Your task to perform on an android device: change alarm snooze length Image 0: 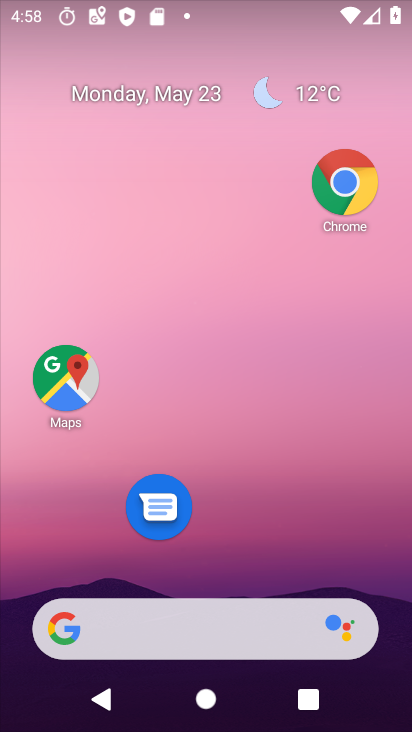
Step 0: drag from (181, 332) to (194, 275)
Your task to perform on an android device: change alarm snooze length Image 1: 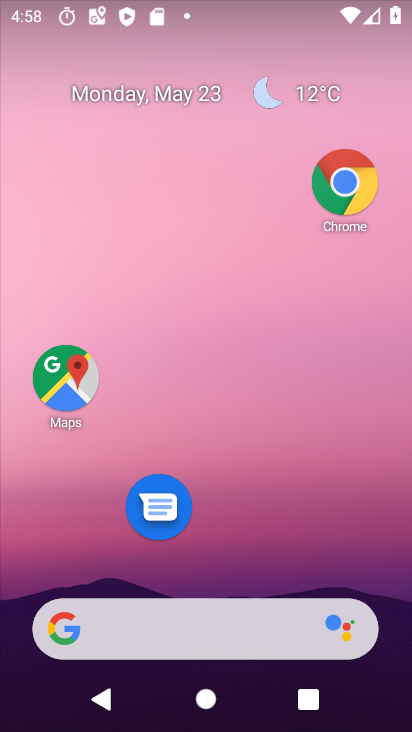
Step 1: drag from (106, 500) to (154, 106)
Your task to perform on an android device: change alarm snooze length Image 2: 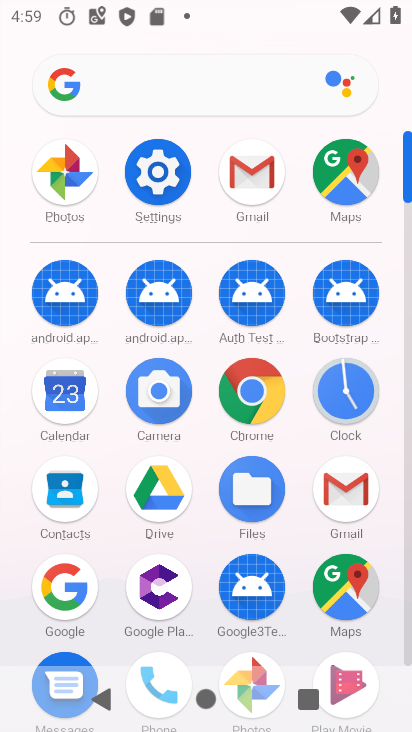
Step 2: click (337, 391)
Your task to perform on an android device: change alarm snooze length Image 3: 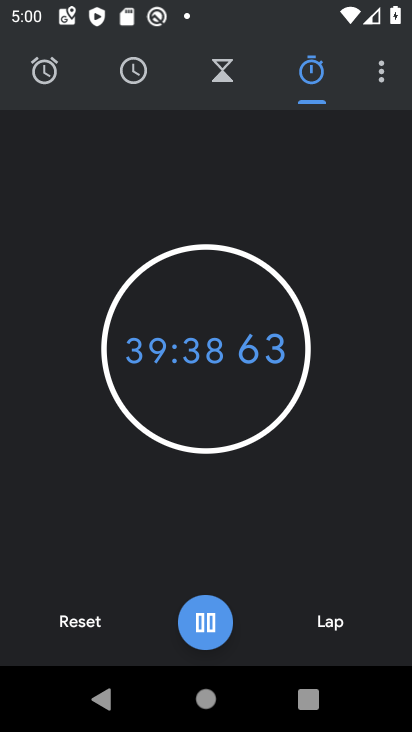
Step 3: click (393, 73)
Your task to perform on an android device: change alarm snooze length Image 4: 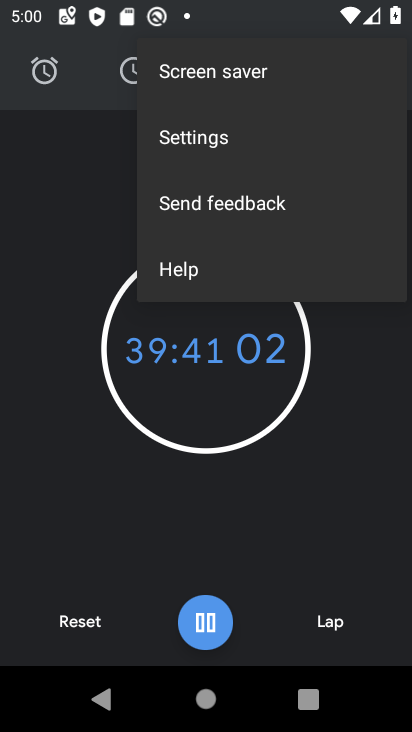
Step 4: click (247, 144)
Your task to perform on an android device: change alarm snooze length Image 5: 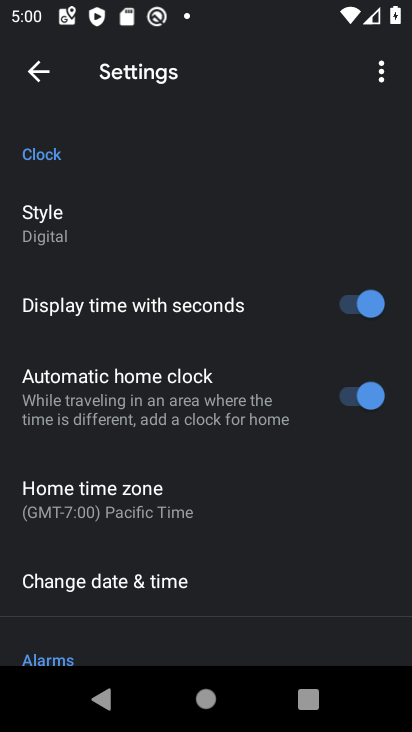
Step 5: drag from (114, 653) to (251, 172)
Your task to perform on an android device: change alarm snooze length Image 6: 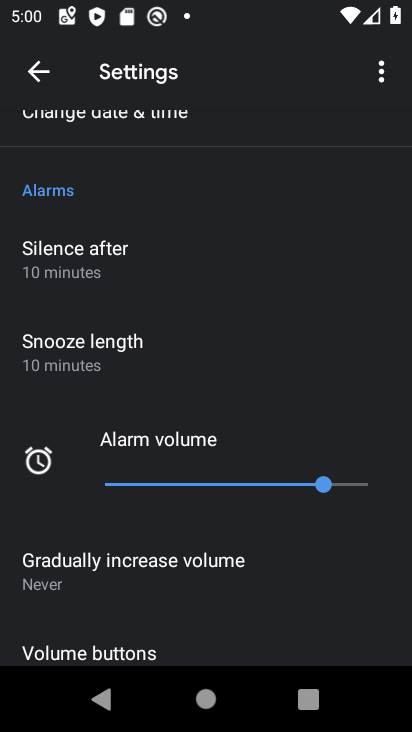
Step 6: click (163, 344)
Your task to perform on an android device: change alarm snooze length Image 7: 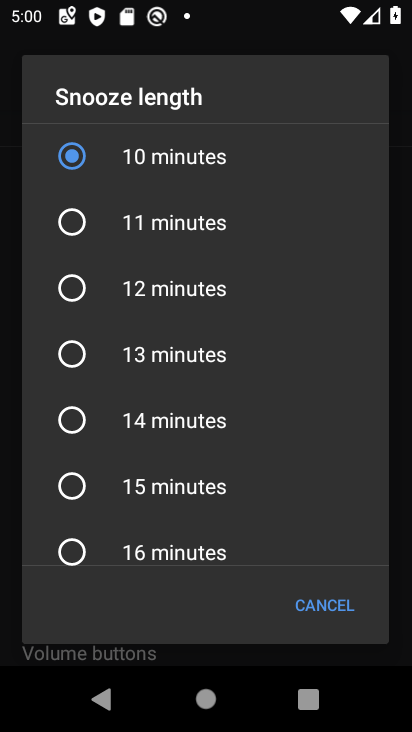
Step 7: click (182, 448)
Your task to perform on an android device: change alarm snooze length Image 8: 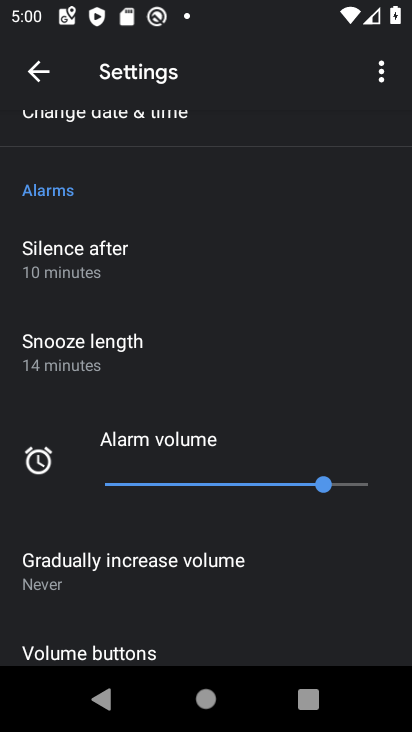
Step 8: task complete